Your task to perform on an android device: Go to Android settings Image 0: 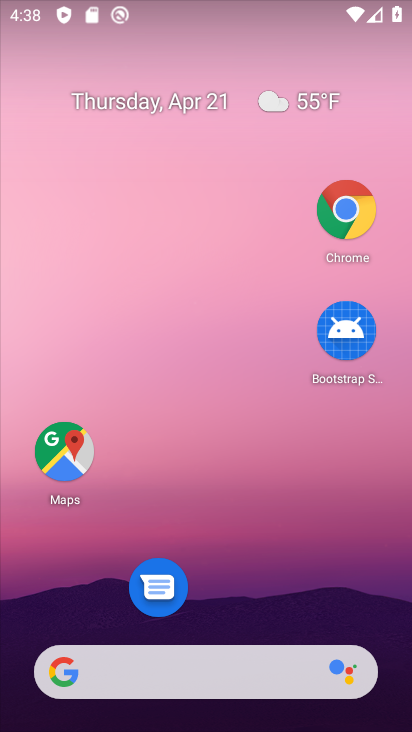
Step 0: drag from (265, 583) to (276, 75)
Your task to perform on an android device: Go to Android settings Image 1: 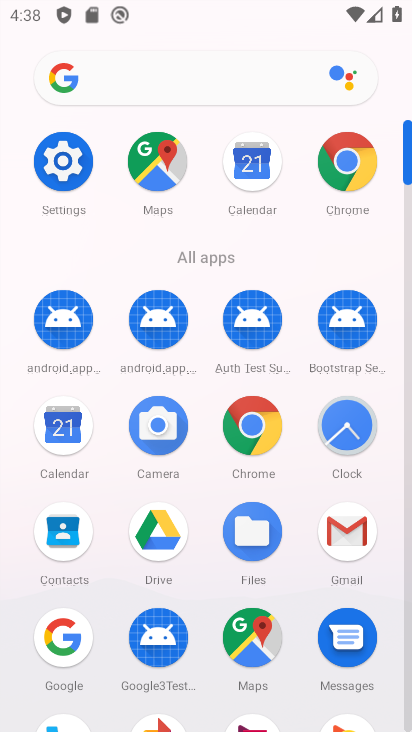
Step 1: click (61, 180)
Your task to perform on an android device: Go to Android settings Image 2: 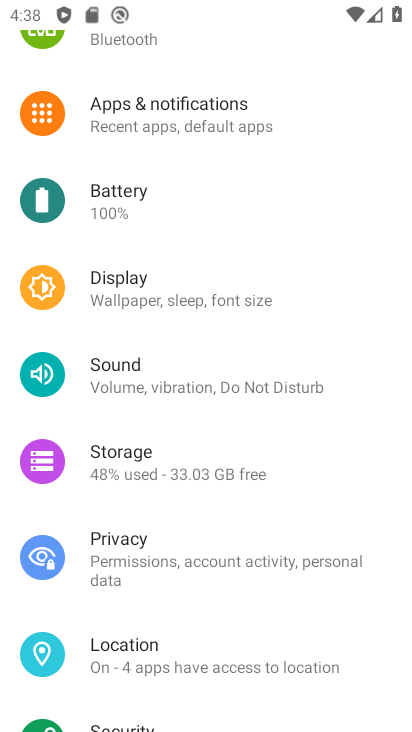
Step 2: drag from (370, 673) to (380, 199)
Your task to perform on an android device: Go to Android settings Image 3: 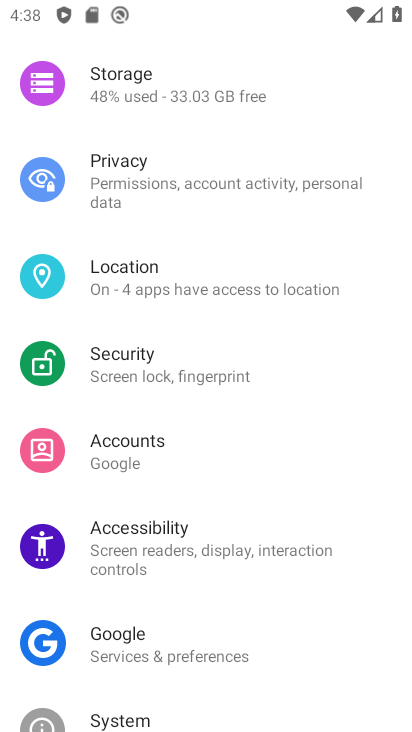
Step 3: drag from (362, 649) to (380, 282)
Your task to perform on an android device: Go to Android settings Image 4: 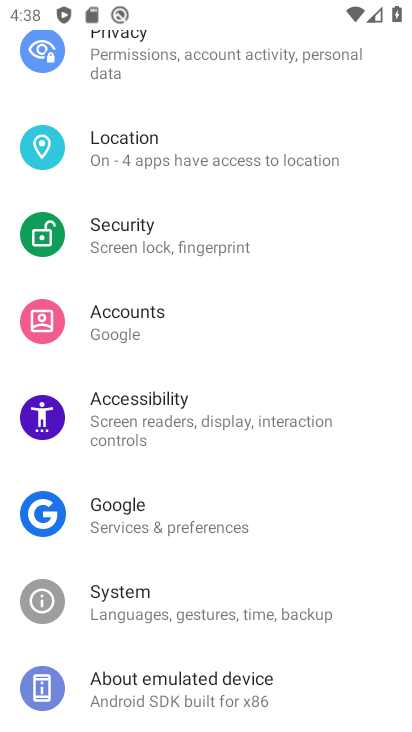
Step 4: click (208, 683)
Your task to perform on an android device: Go to Android settings Image 5: 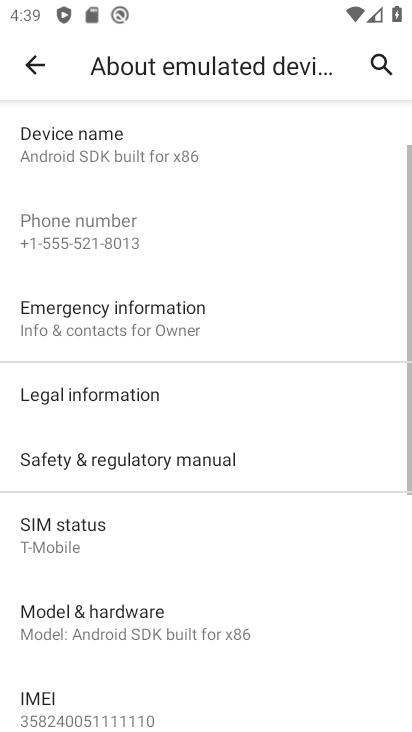
Step 5: task complete